Your task to perform on an android device: turn off smart reply in the gmail app Image 0: 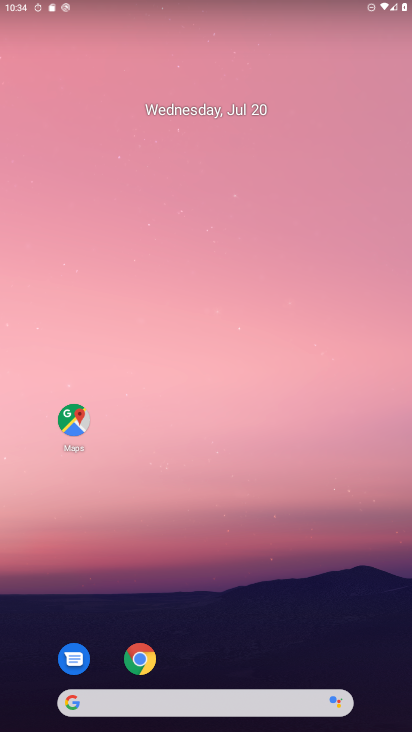
Step 0: drag from (326, 596) to (223, 4)
Your task to perform on an android device: turn off smart reply in the gmail app Image 1: 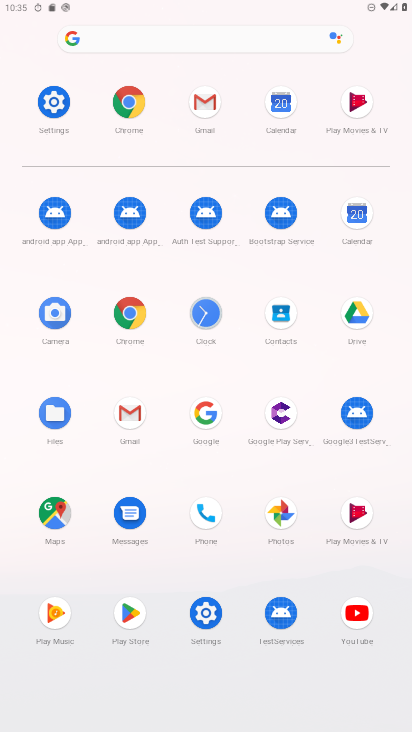
Step 1: click (208, 101)
Your task to perform on an android device: turn off smart reply in the gmail app Image 2: 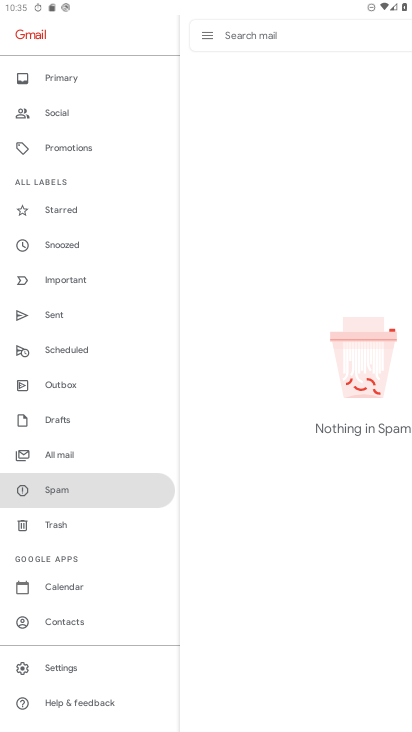
Step 2: click (82, 664)
Your task to perform on an android device: turn off smart reply in the gmail app Image 3: 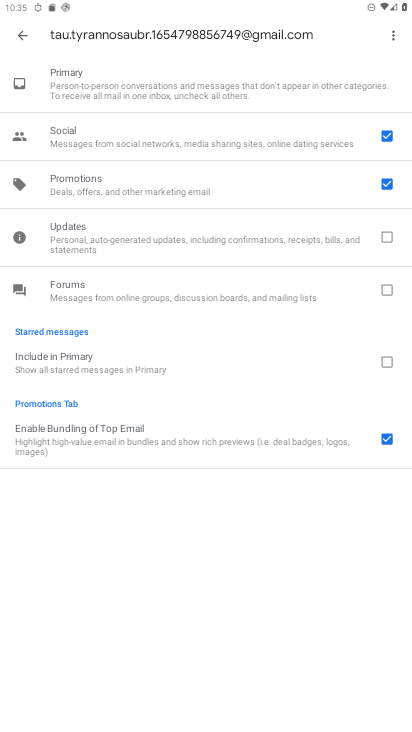
Step 3: click (23, 34)
Your task to perform on an android device: turn off smart reply in the gmail app Image 4: 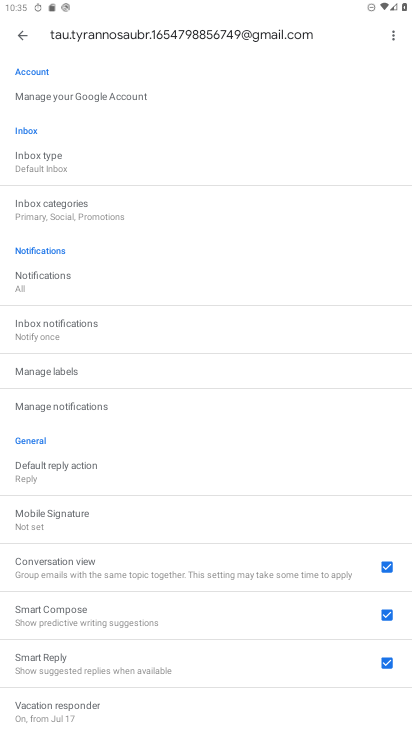
Step 4: click (387, 663)
Your task to perform on an android device: turn off smart reply in the gmail app Image 5: 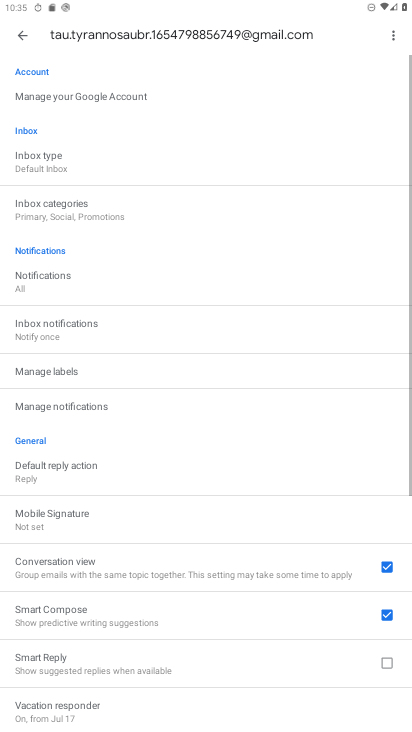
Step 5: task complete